Your task to perform on an android device: turn off location Image 0: 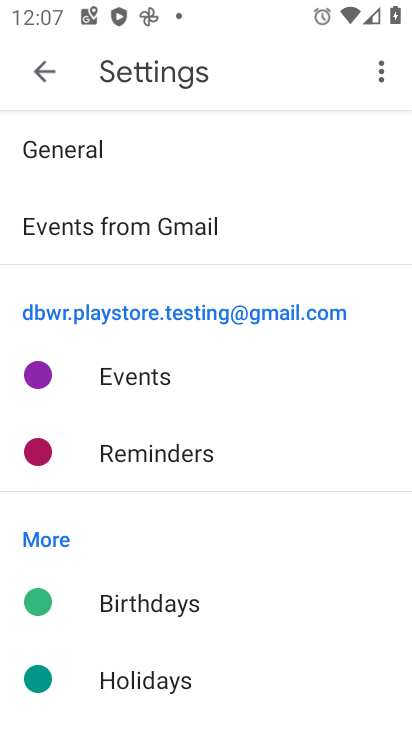
Step 0: press home button
Your task to perform on an android device: turn off location Image 1: 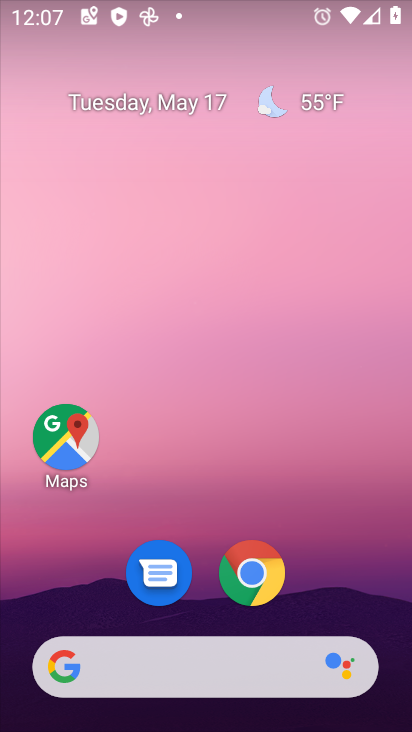
Step 1: drag from (359, 573) to (288, 217)
Your task to perform on an android device: turn off location Image 2: 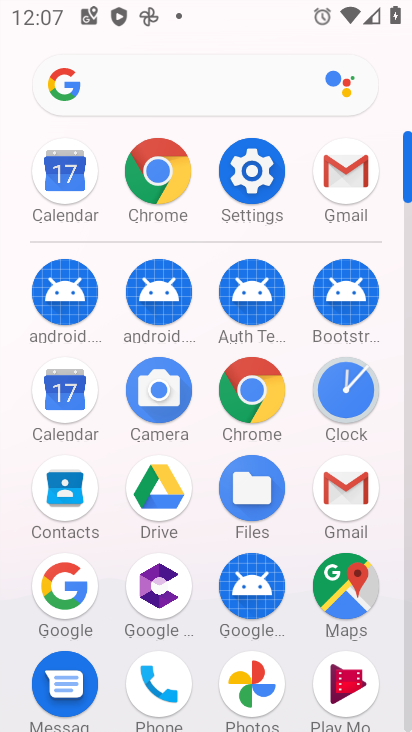
Step 2: click (242, 192)
Your task to perform on an android device: turn off location Image 3: 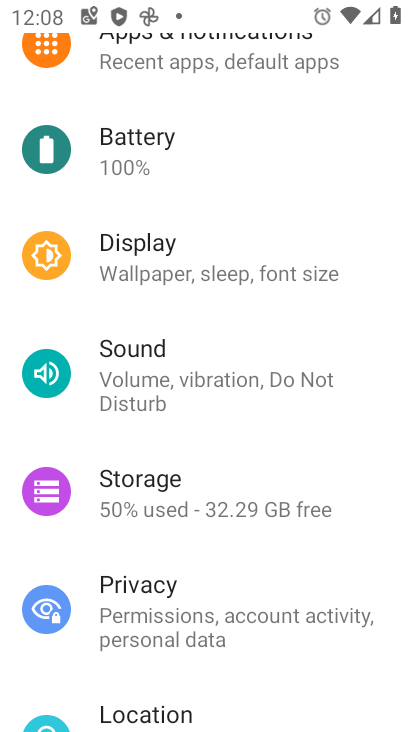
Step 3: drag from (285, 558) to (261, 297)
Your task to perform on an android device: turn off location Image 4: 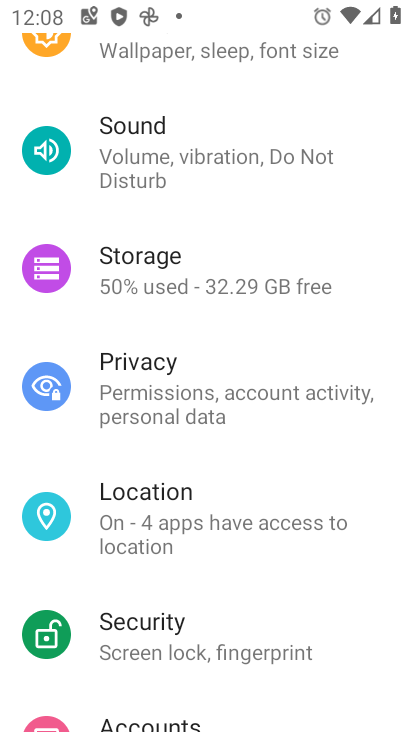
Step 4: click (154, 510)
Your task to perform on an android device: turn off location Image 5: 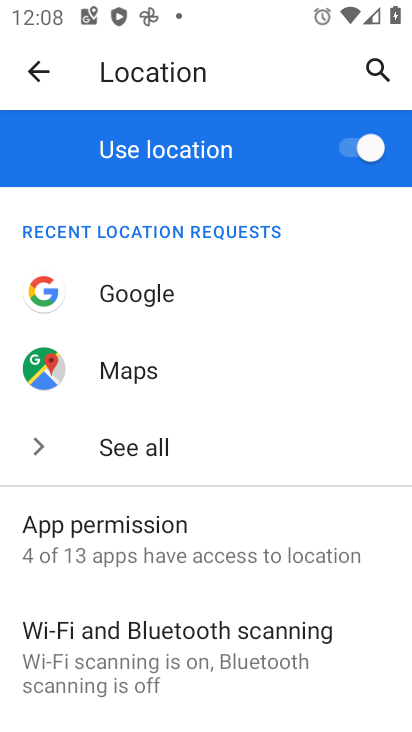
Step 5: click (365, 150)
Your task to perform on an android device: turn off location Image 6: 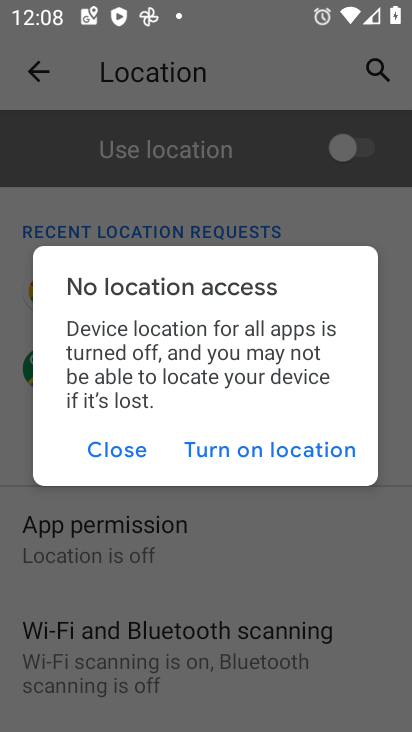
Step 6: click (105, 449)
Your task to perform on an android device: turn off location Image 7: 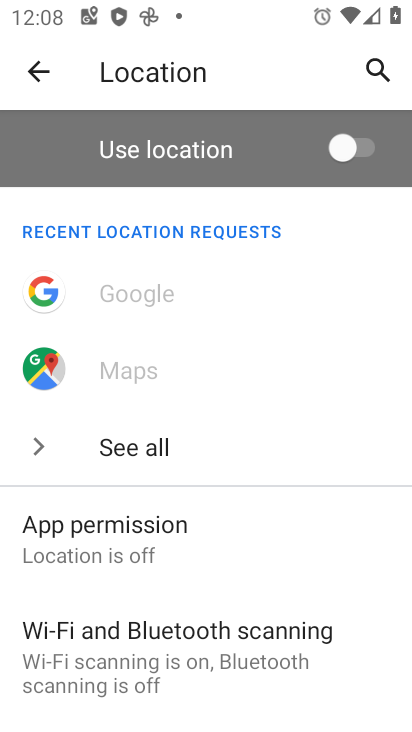
Step 7: task complete